Your task to perform on an android device: Is it going to rain tomorrow? Image 0: 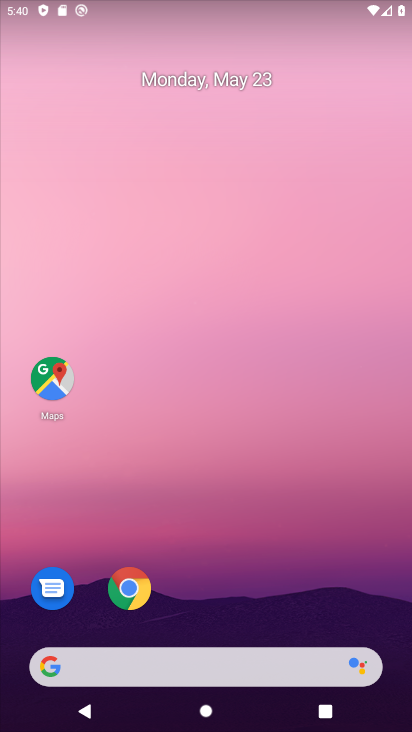
Step 0: drag from (245, 539) to (239, 5)
Your task to perform on an android device: Is it going to rain tomorrow? Image 1: 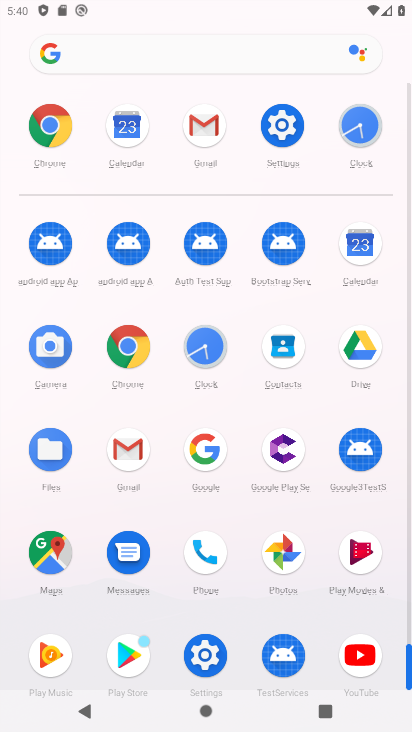
Step 1: drag from (5, 569) to (24, 136)
Your task to perform on an android device: Is it going to rain tomorrow? Image 2: 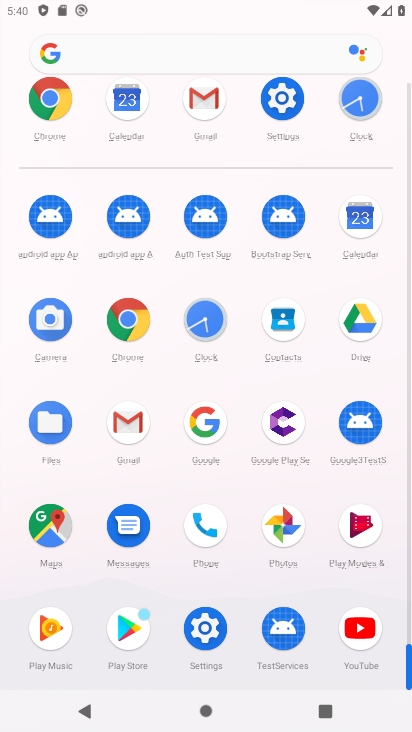
Step 2: drag from (11, 532) to (10, 222)
Your task to perform on an android device: Is it going to rain tomorrow? Image 3: 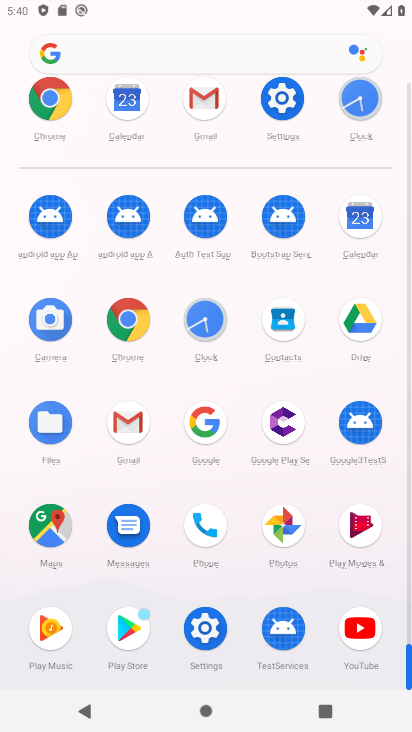
Step 3: drag from (3, 575) to (23, 268)
Your task to perform on an android device: Is it going to rain tomorrow? Image 4: 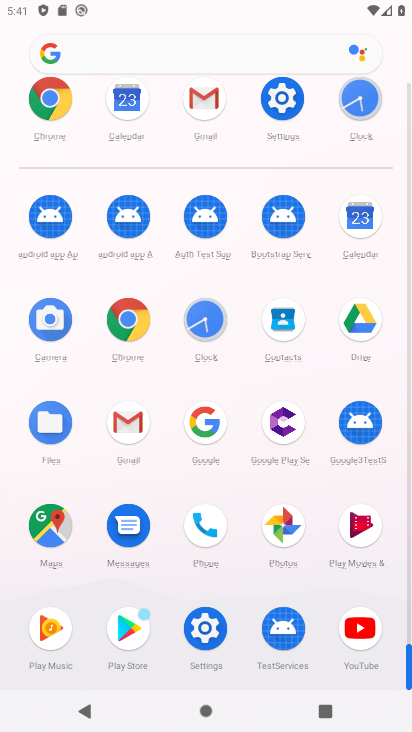
Step 4: click (131, 315)
Your task to perform on an android device: Is it going to rain tomorrow? Image 5: 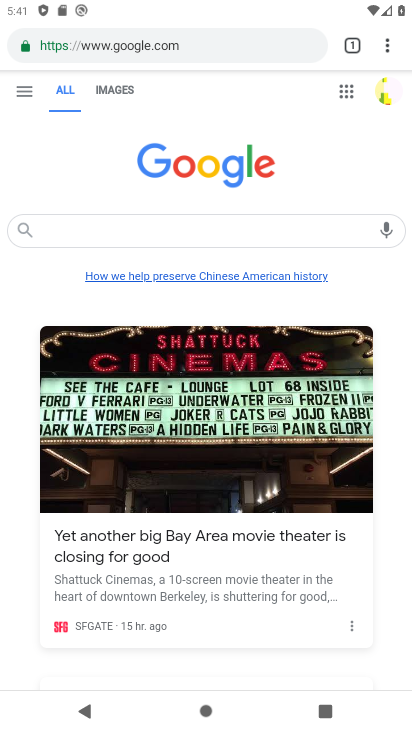
Step 5: click (99, 45)
Your task to perform on an android device: Is it going to rain tomorrow? Image 6: 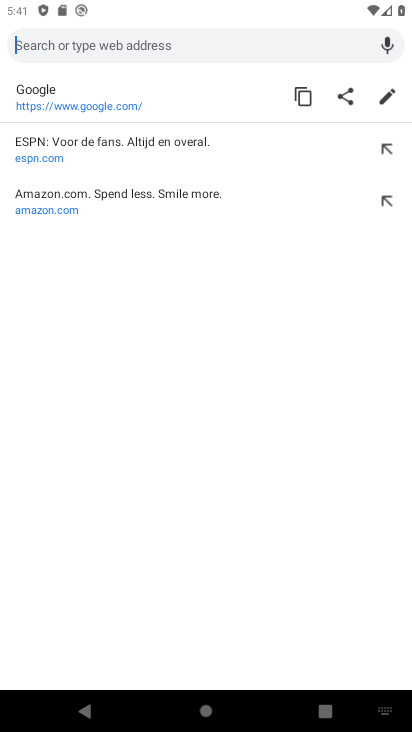
Step 6: type "Is it going to rain tomorrow?"
Your task to perform on an android device: Is it going to rain tomorrow? Image 7: 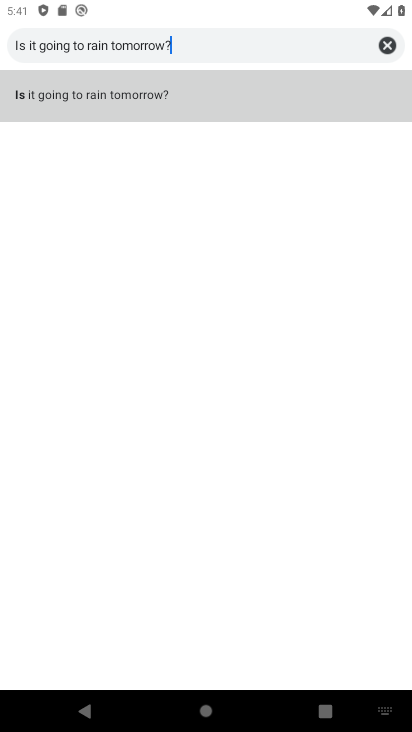
Step 7: type ""
Your task to perform on an android device: Is it going to rain tomorrow? Image 8: 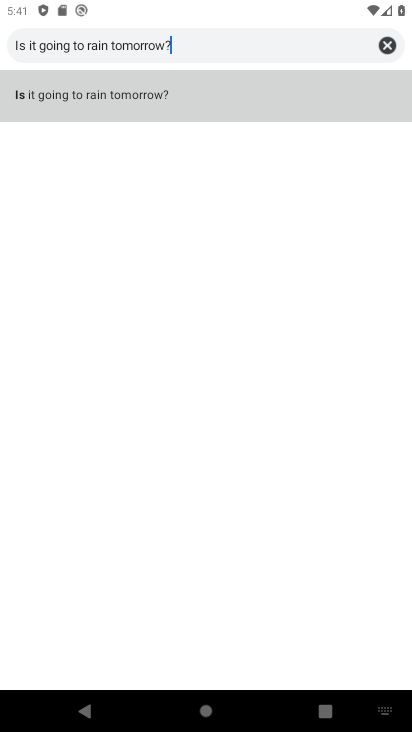
Step 8: click (137, 97)
Your task to perform on an android device: Is it going to rain tomorrow? Image 9: 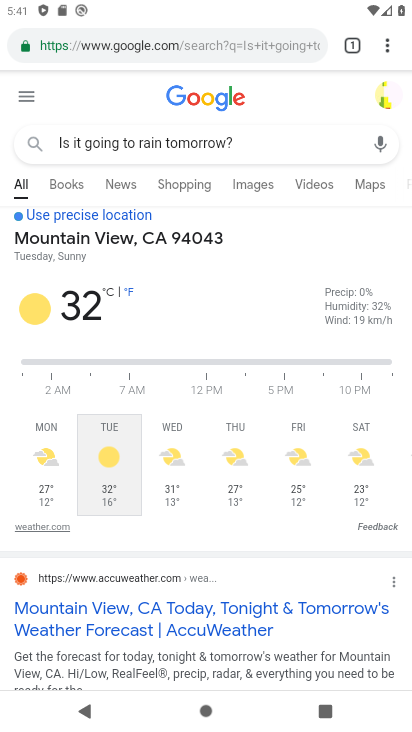
Step 9: task complete